Your task to perform on an android device: change your default location settings in chrome Image 0: 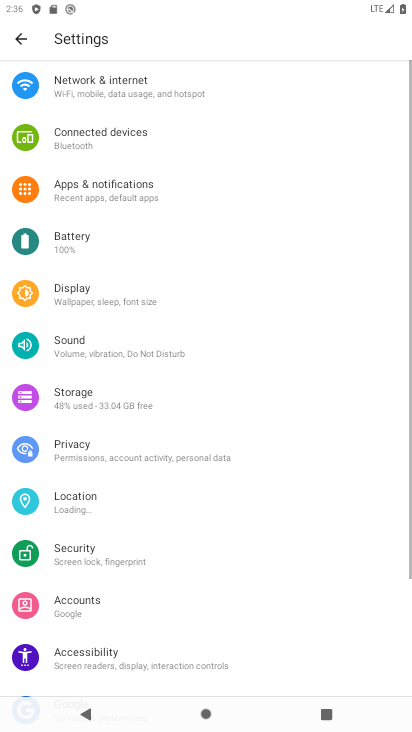
Step 0: press home button
Your task to perform on an android device: change your default location settings in chrome Image 1: 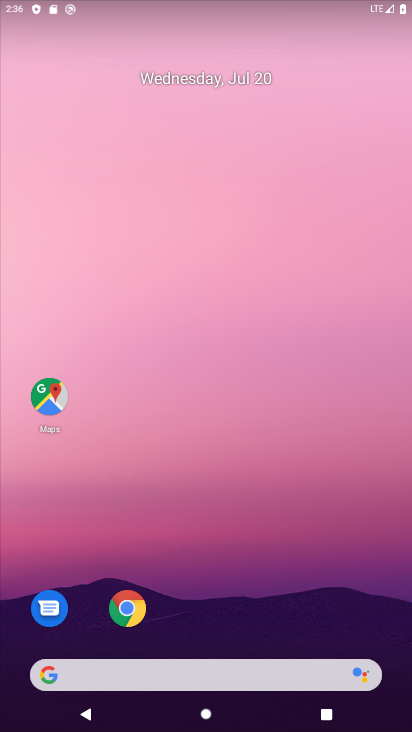
Step 1: click (132, 613)
Your task to perform on an android device: change your default location settings in chrome Image 2: 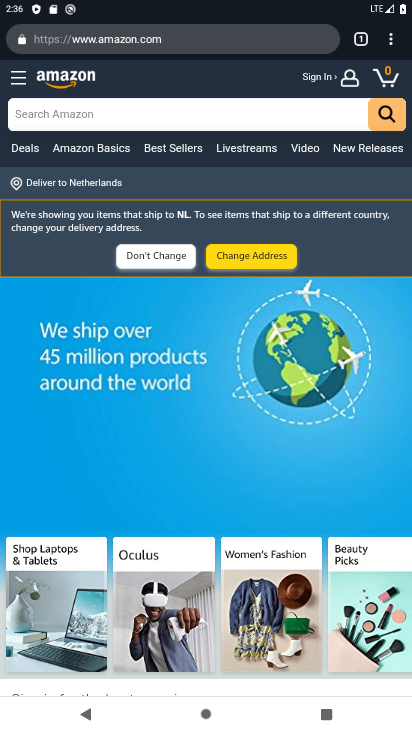
Step 2: click (391, 36)
Your task to perform on an android device: change your default location settings in chrome Image 3: 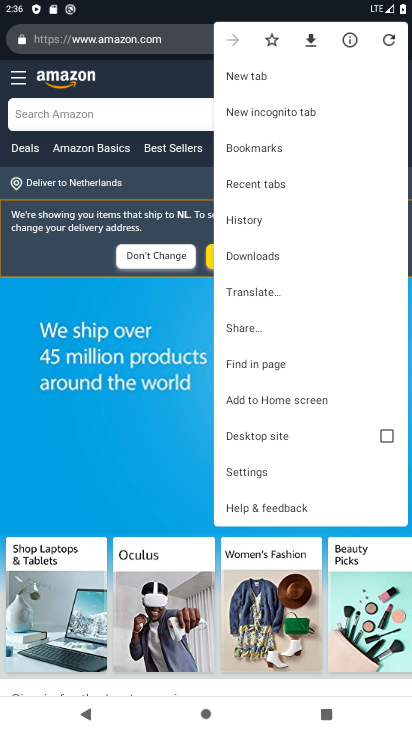
Step 3: click (237, 472)
Your task to perform on an android device: change your default location settings in chrome Image 4: 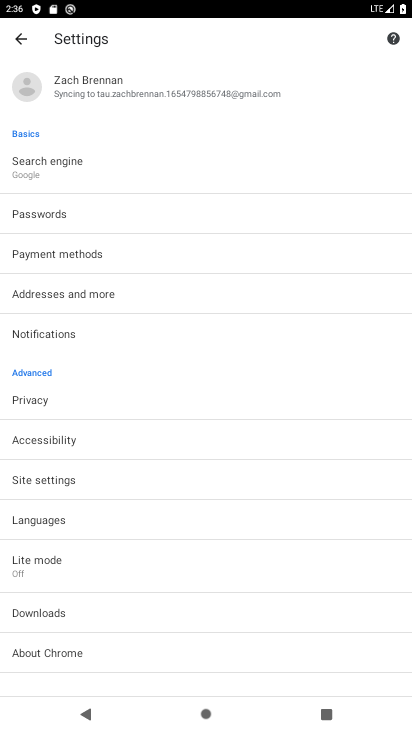
Step 4: click (99, 509)
Your task to perform on an android device: change your default location settings in chrome Image 5: 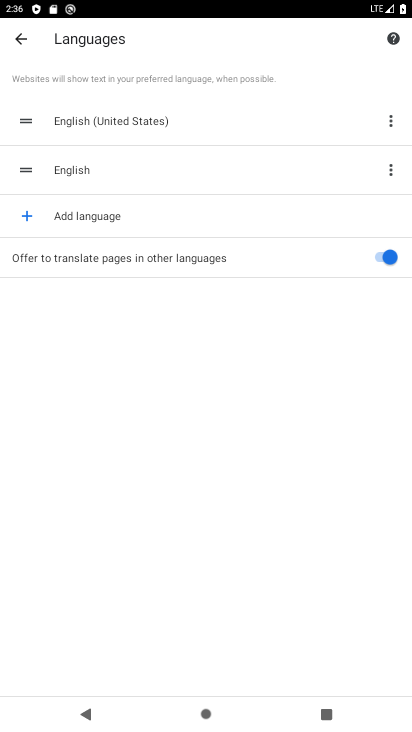
Step 5: click (28, 41)
Your task to perform on an android device: change your default location settings in chrome Image 6: 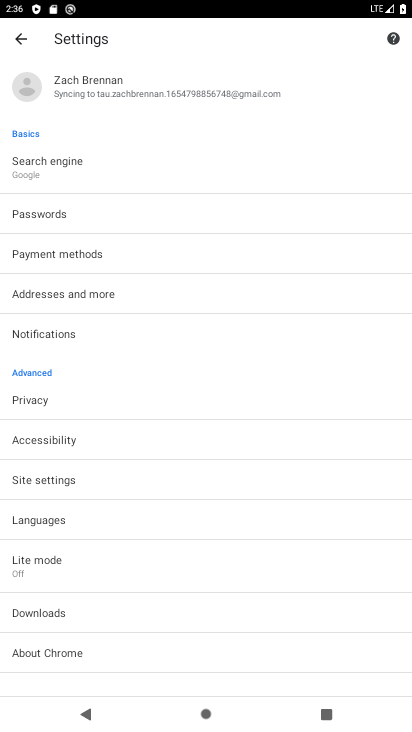
Step 6: click (45, 487)
Your task to perform on an android device: change your default location settings in chrome Image 7: 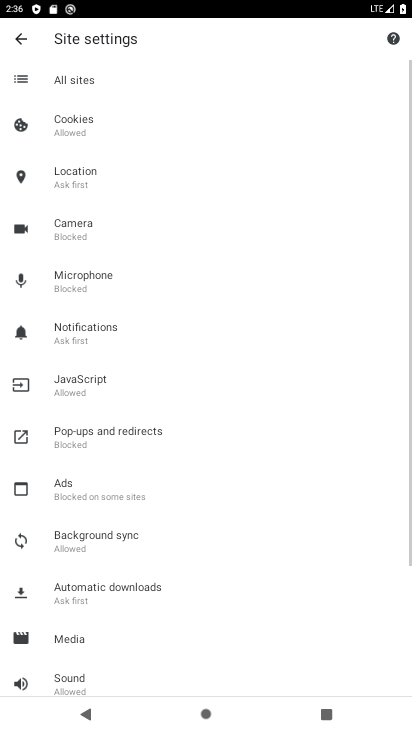
Step 7: click (57, 177)
Your task to perform on an android device: change your default location settings in chrome Image 8: 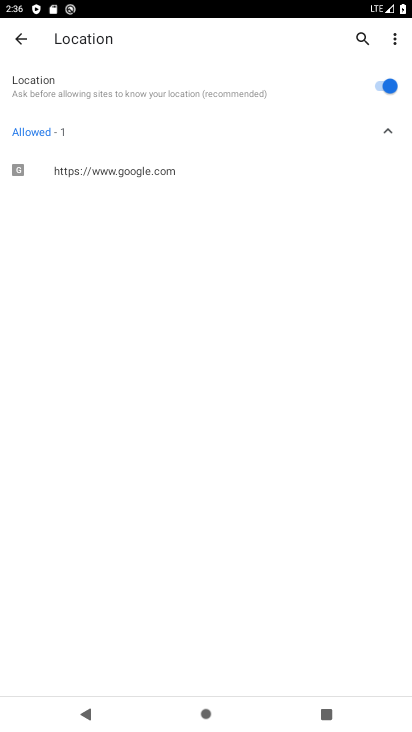
Step 8: click (385, 88)
Your task to perform on an android device: change your default location settings in chrome Image 9: 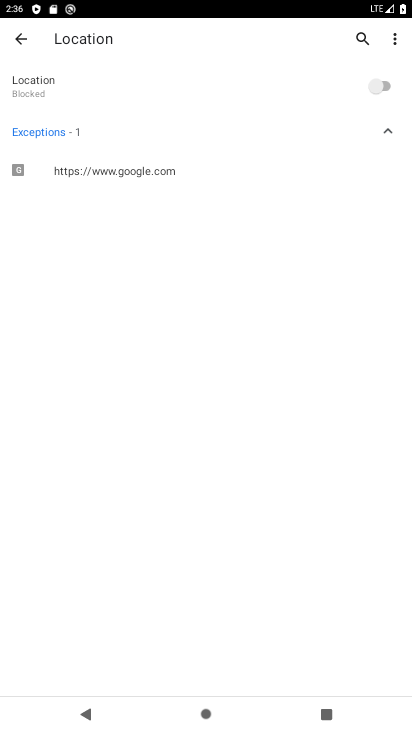
Step 9: task complete